Your task to perform on an android device: toggle data saver in the chrome app Image 0: 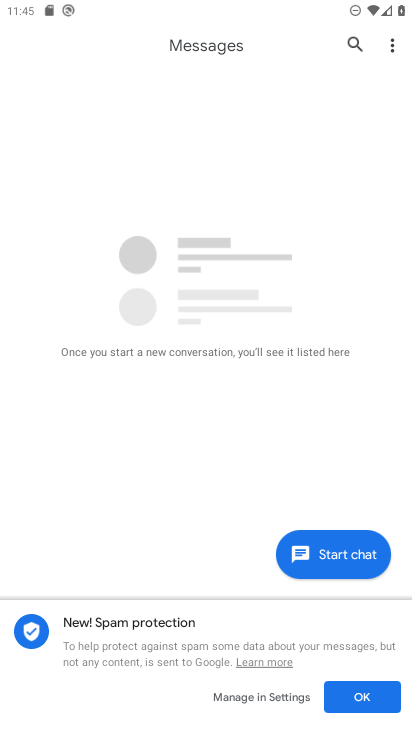
Step 0: drag from (269, 630) to (265, 388)
Your task to perform on an android device: toggle data saver in the chrome app Image 1: 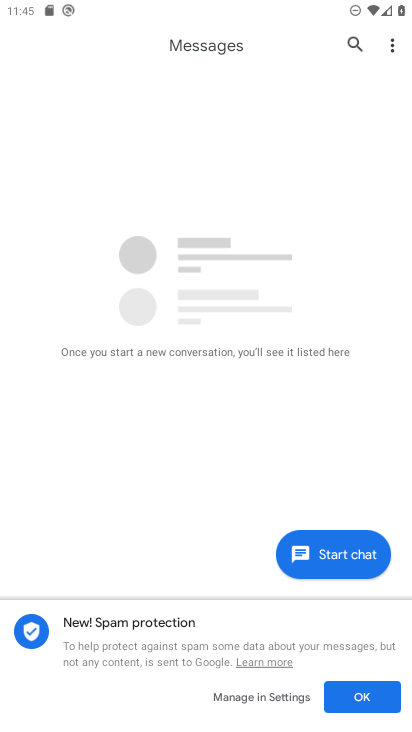
Step 1: press home button
Your task to perform on an android device: toggle data saver in the chrome app Image 2: 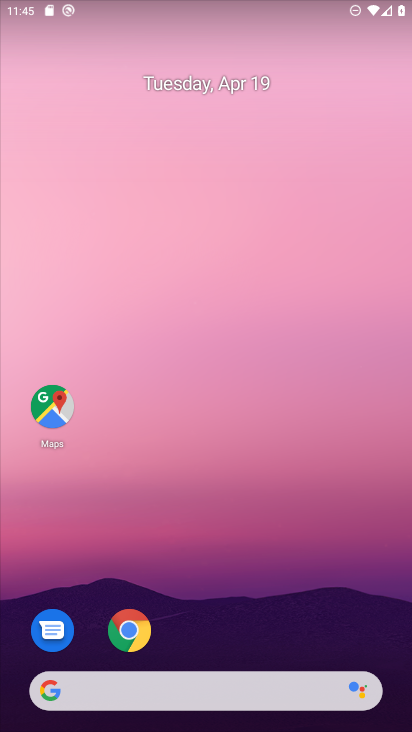
Step 2: click (122, 628)
Your task to perform on an android device: toggle data saver in the chrome app Image 3: 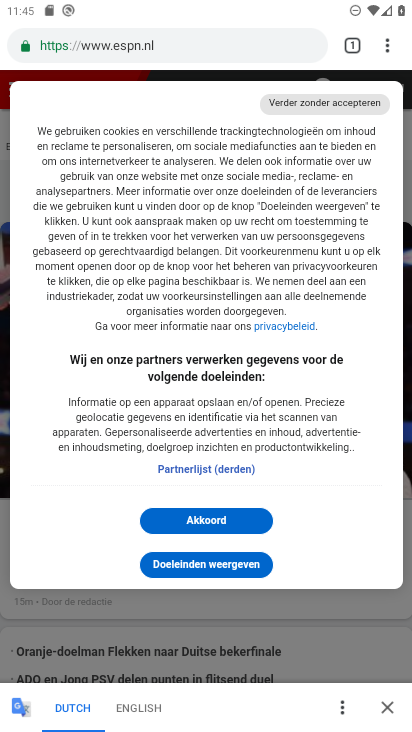
Step 3: drag from (385, 42) to (235, 552)
Your task to perform on an android device: toggle data saver in the chrome app Image 4: 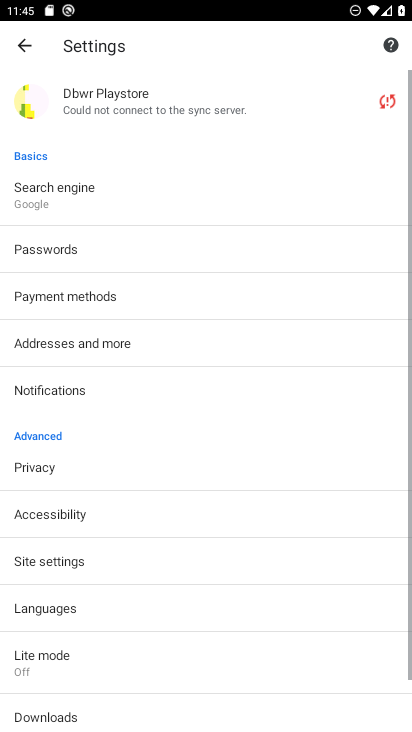
Step 4: click (28, 663)
Your task to perform on an android device: toggle data saver in the chrome app Image 5: 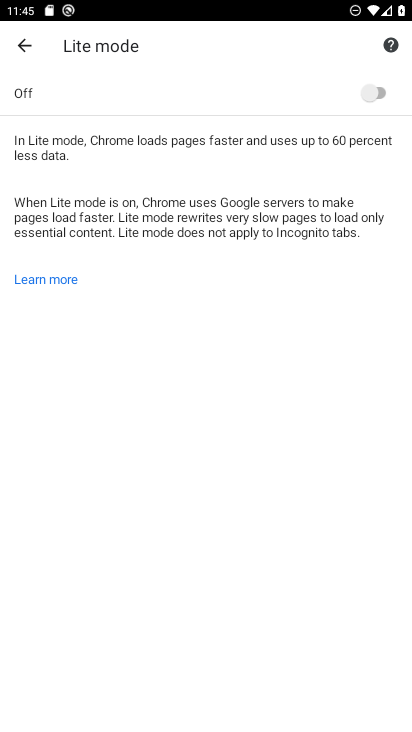
Step 5: click (376, 89)
Your task to perform on an android device: toggle data saver in the chrome app Image 6: 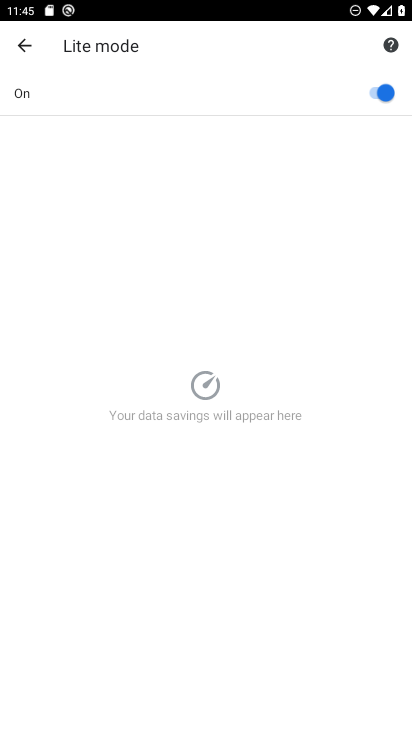
Step 6: task complete